Your task to perform on an android device: turn off smart reply in the gmail app Image 0: 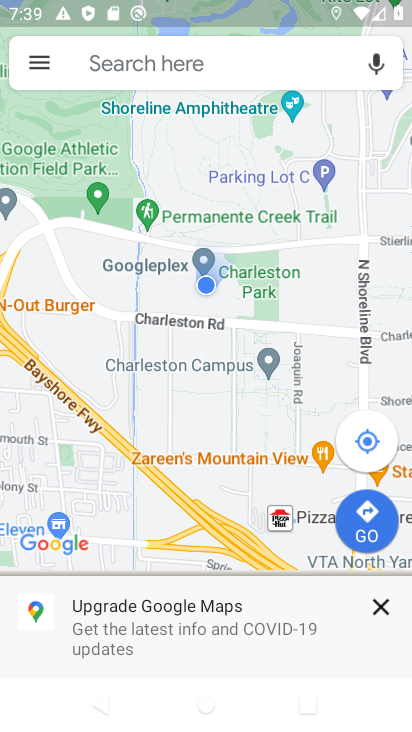
Step 0: press home button
Your task to perform on an android device: turn off smart reply in the gmail app Image 1: 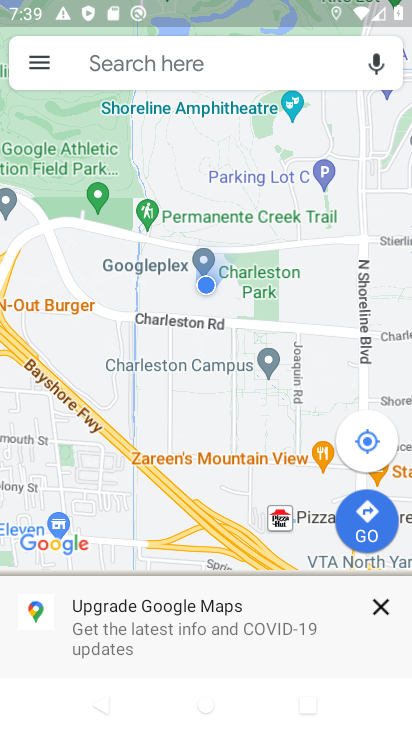
Step 1: press home button
Your task to perform on an android device: turn off smart reply in the gmail app Image 2: 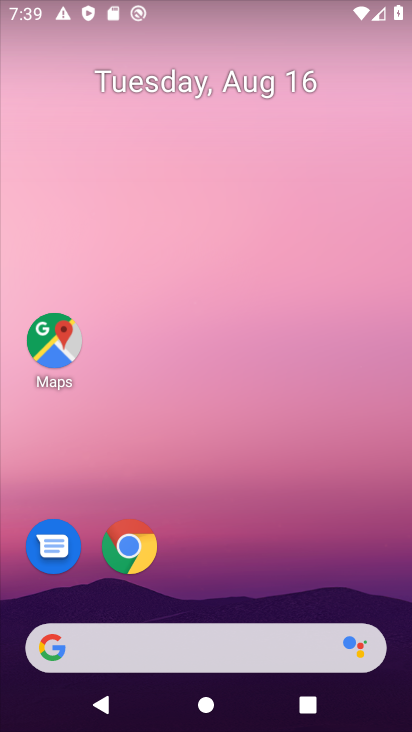
Step 2: drag from (244, 573) to (234, 1)
Your task to perform on an android device: turn off smart reply in the gmail app Image 3: 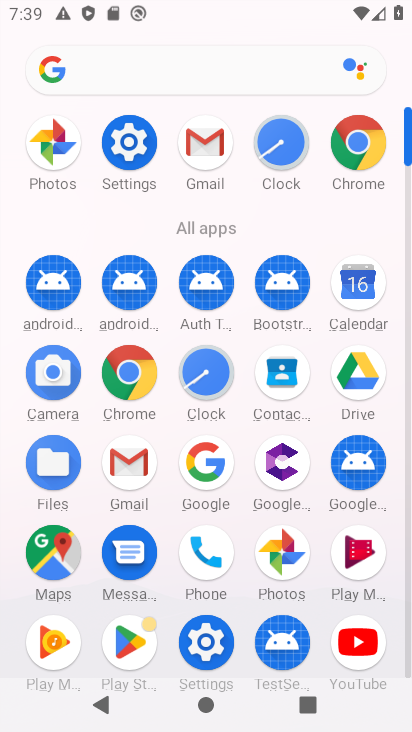
Step 3: click (211, 136)
Your task to perform on an android device: turn off smart reply in the gmail app Image 4: 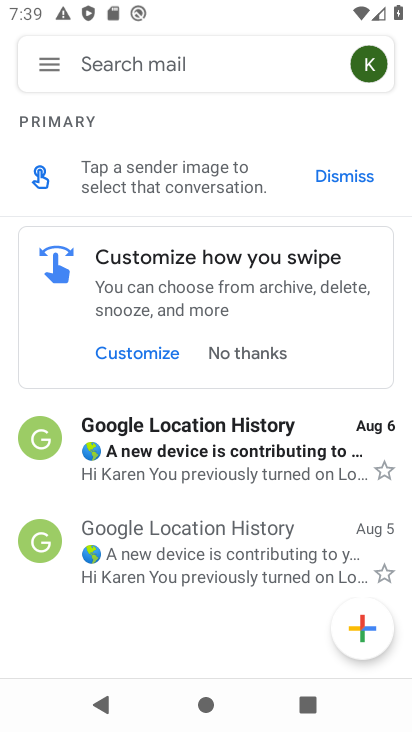
Step 4: click (50, 66)
Your task to perform on an android device: turn off smart reply in the gmail app Image 5: 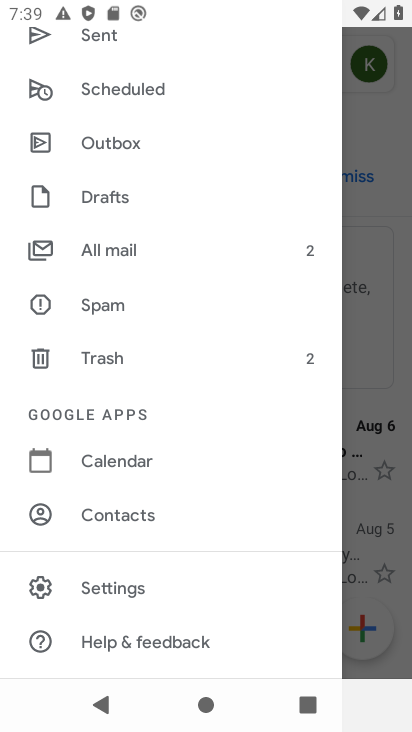
Step 5: click (139, 582)
Your task to perform on an android device: turn off smart reply in the gmail app Image 6: 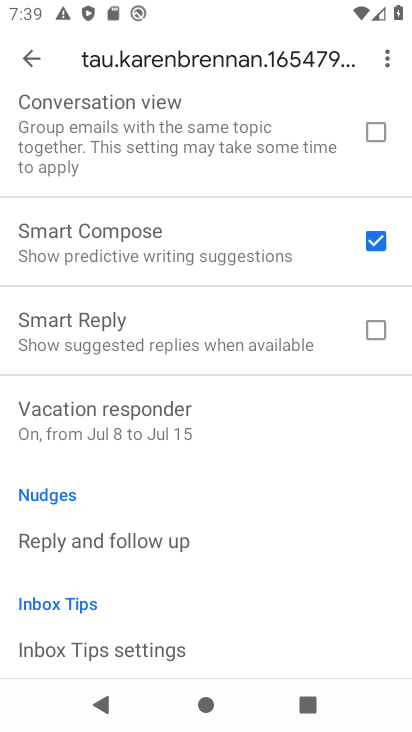
Step 6: task complete